Your task to perform on an android device: check out phone information Image 0: 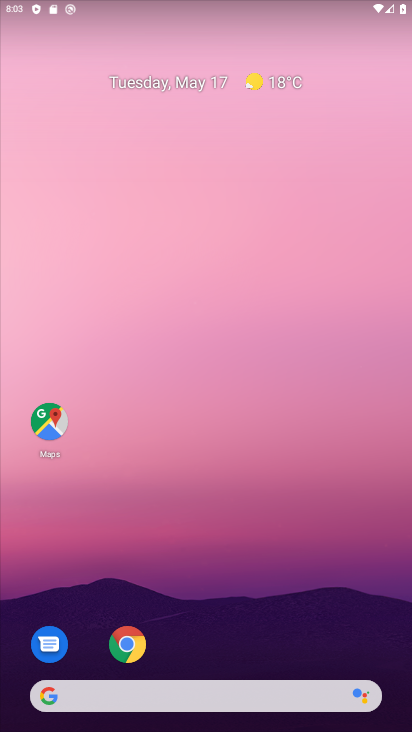
Step 0: drag from (208, 597) to (344, 42)
Your task to perform on an android device: check out phone information Image 1: 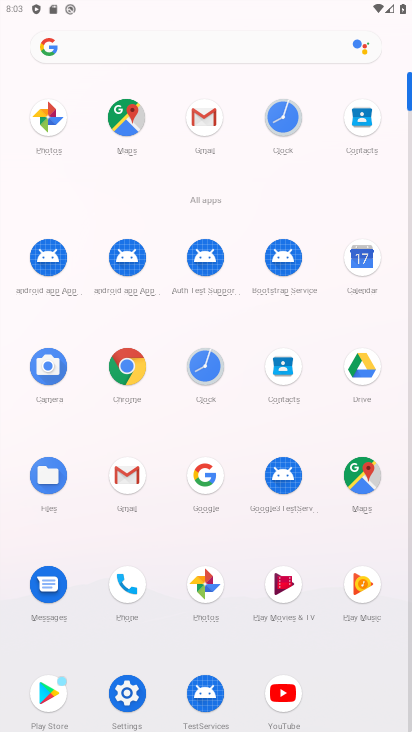
Step 1: click (129, 700)
Your task to perform on an android device: check out phone information Image 2: 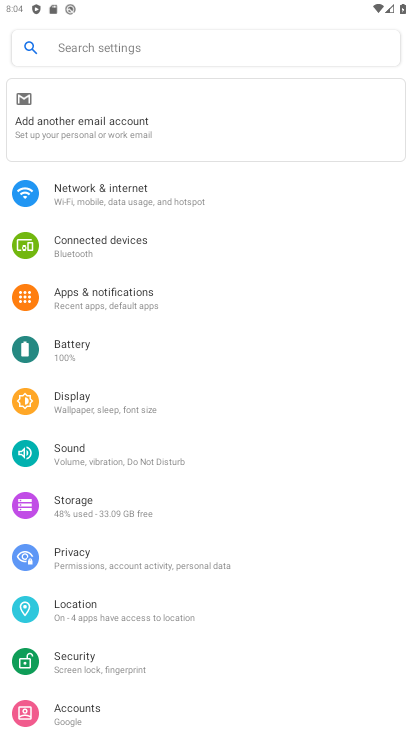
Step 2: drag from (297, 578) to (353, 157)
Your task to perform on an android device: check out phone information Image 3: 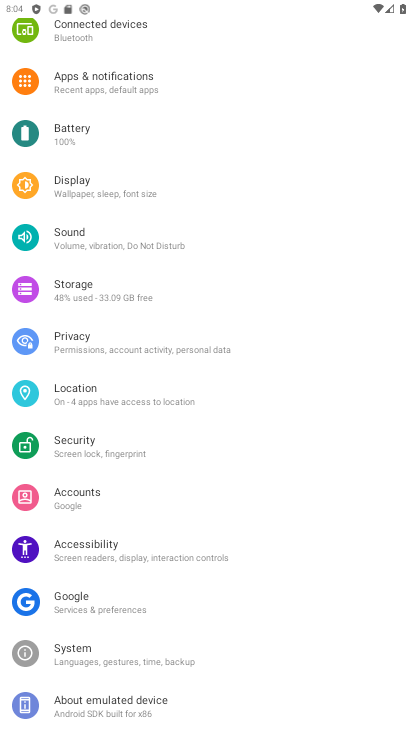
Step 3: click (129, 695)
Your task to perform on an android device: check out phone information Image 4: 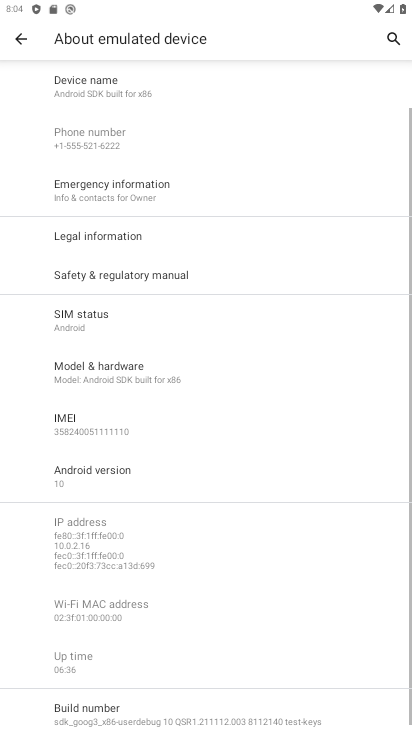
Step 4: task complete